Your task to perform on an android device: Go to eBay Image 0: 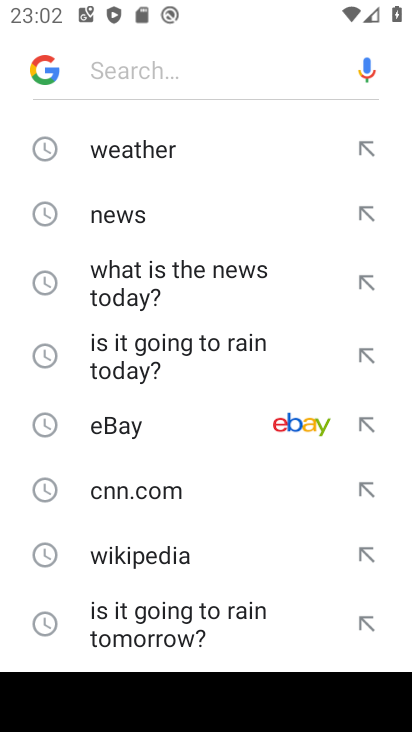
Step 0: click (153, 417)
Your task to perform on an android device: Go to eBay Image 1: 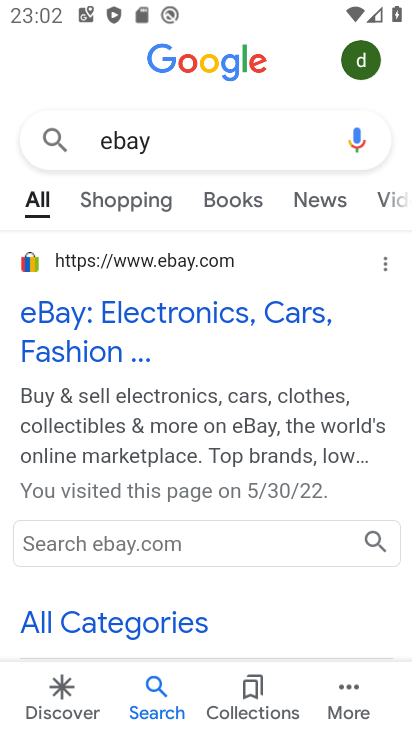
Step 1: click (77, 349)
Your task to perform on an android device: Go to eBay Image 2: 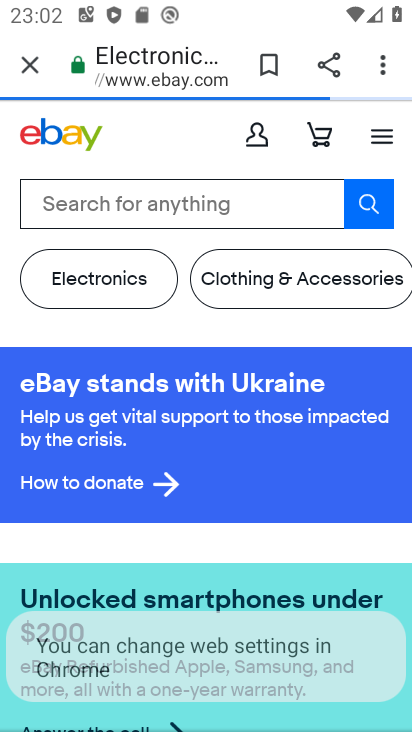
Step 2: task complete